Your task to perform on an android device: make emails show in primary in the gmail app Image 0: 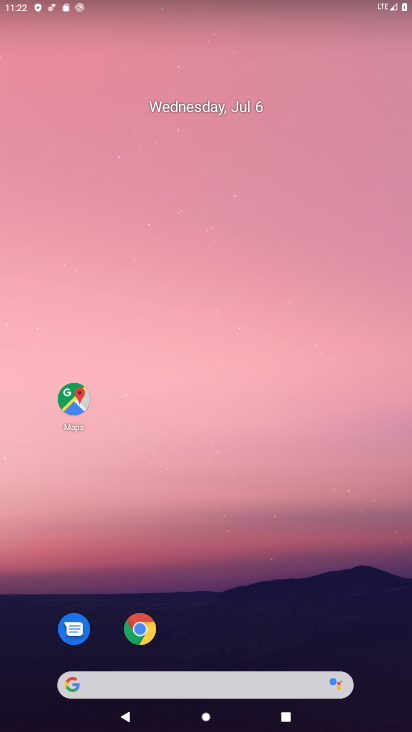
Step 0: drag from (211, 604) to (226, 129)
Your task to perform on an android device: make emails show in primary in the gmail app Image 1: 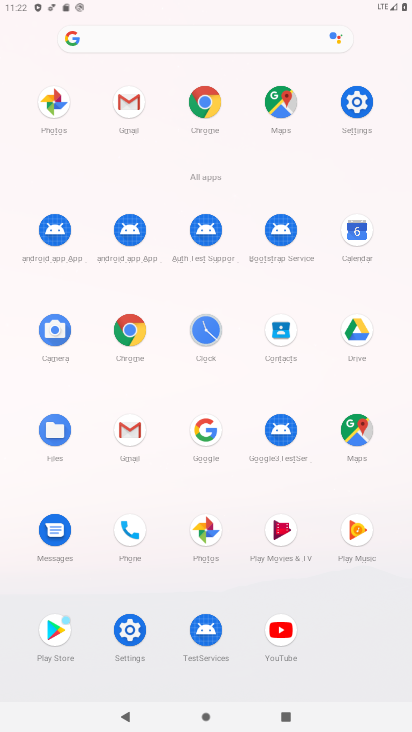
Step 1: click (132, 101)
Your task to perform on an android device: make emails show in primary in the gmail app Image 2: 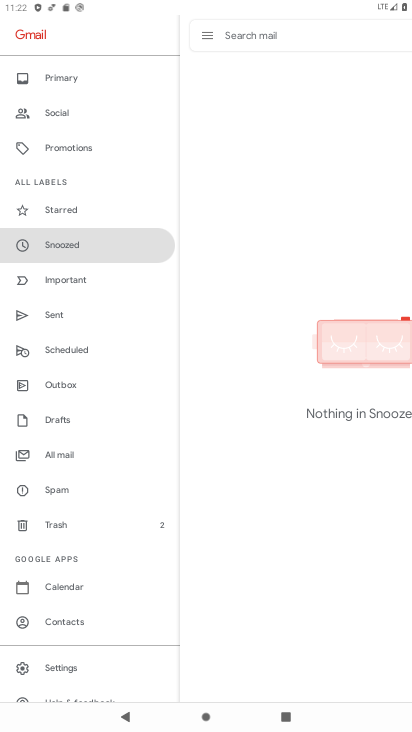
Step 2: click (70, 664)
Your task to perform on an android device: make emails show in primary in the gmail app Image 3: 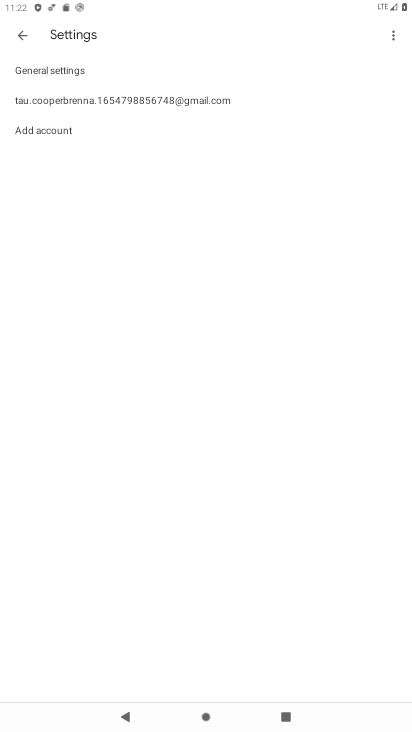
Step 3: click (155, 109)
Your task to perform on an android device: make emails show in primary in the gmail app Image 4: 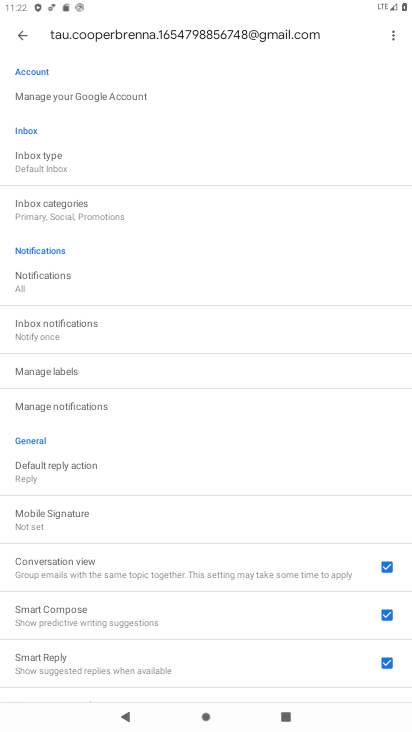
Step 4: click (130, 172)
Your task to perform on an android device: make emails show in primary in the gmail app Image 5: 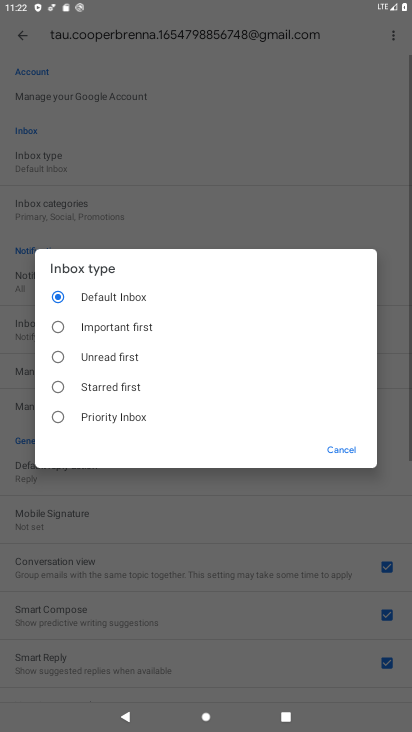
Step 5: click (130, 172)
Your task to perform on an android device: make emails show in primary in the gmail app Image 6: 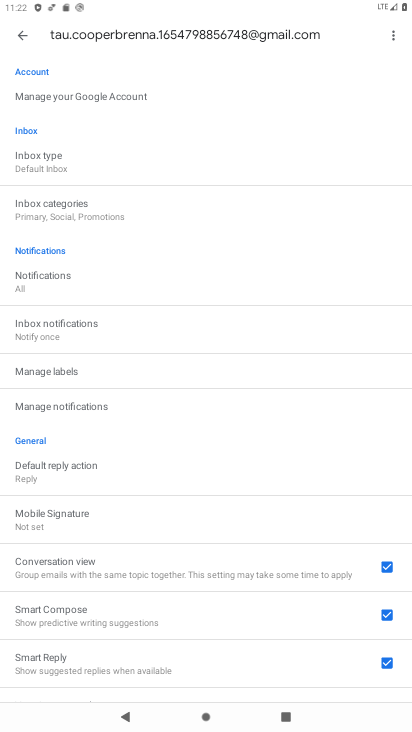
Step 6: task complete